Your task to perform on an android device: turn notification dots off Image 0: 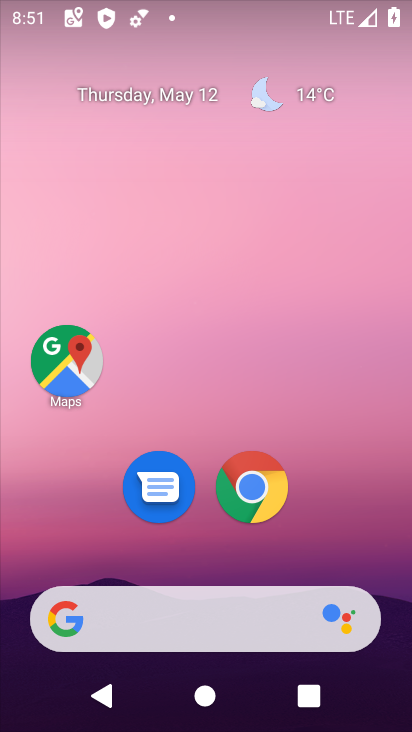
Step 0: drag from (26, 598) to (230, 204)
Your task to perform on an android device: turn notification dots off Image 1: 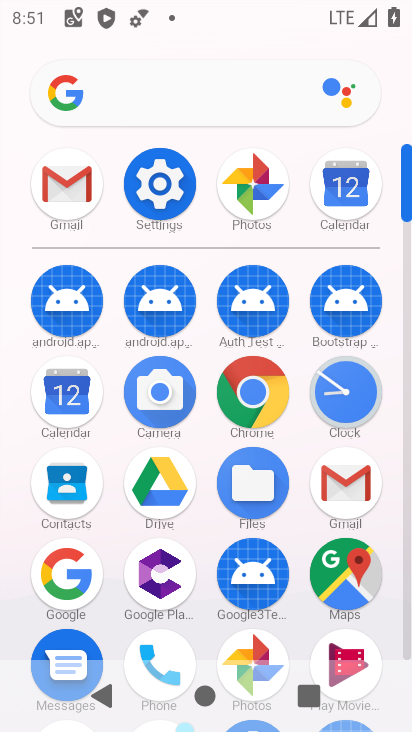
Step 1: click (177, 179)
Your task to perform on an android device: turn notification dots off Image 2: 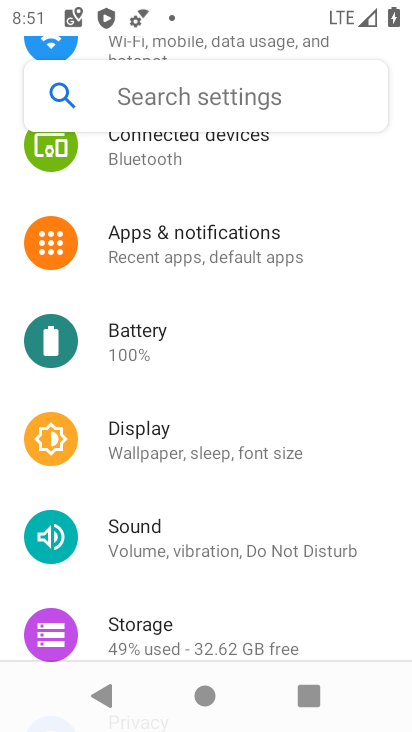
Step 2: click (241, 236)
Your task to perform on an android device: turn notification dots off Image 3: 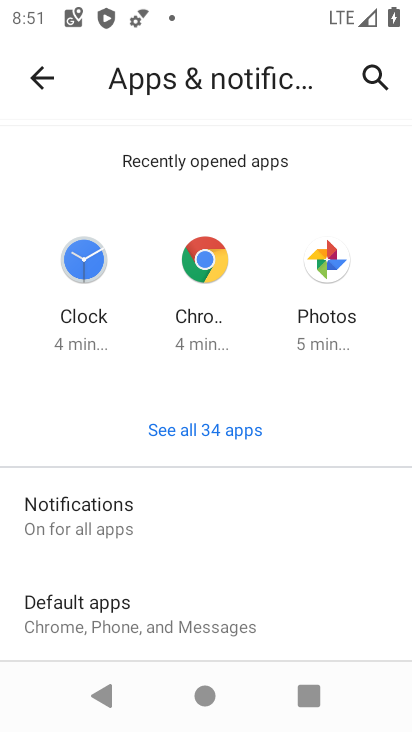
Step 3: click (41, 531)
Your task to perform on an android device: turn notification dots off Image 4: 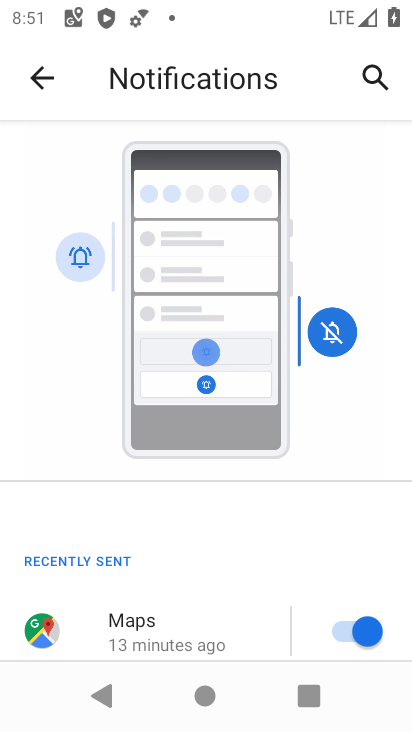
Step 4: drag from (26, 627) to (203, 106)
Your task to perform on an android device: turn notification dots off Image 5: 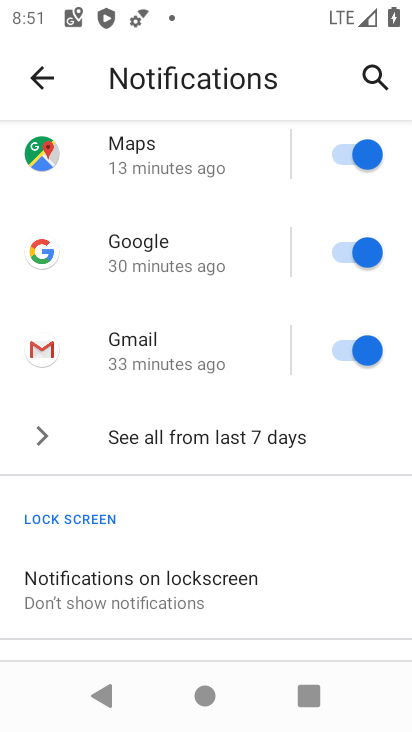
Step 5: drag from (87, 612) to (260, 260)
Your task to perform on an android device: turn notification dots off Image 6: 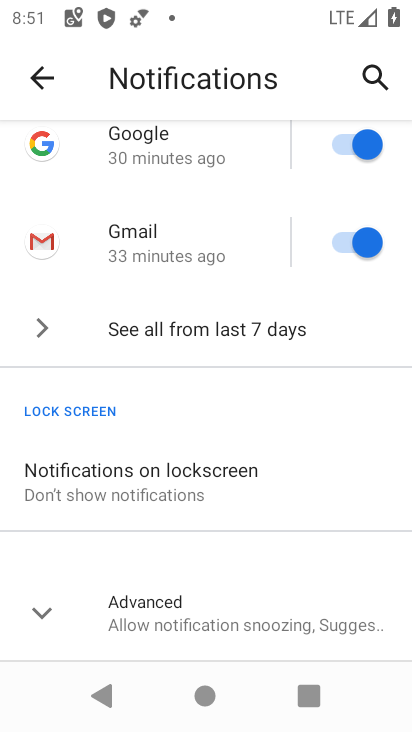
Step 6: click (105, 614)
Your task to perform on an android device: turn notification dots off Image 7: 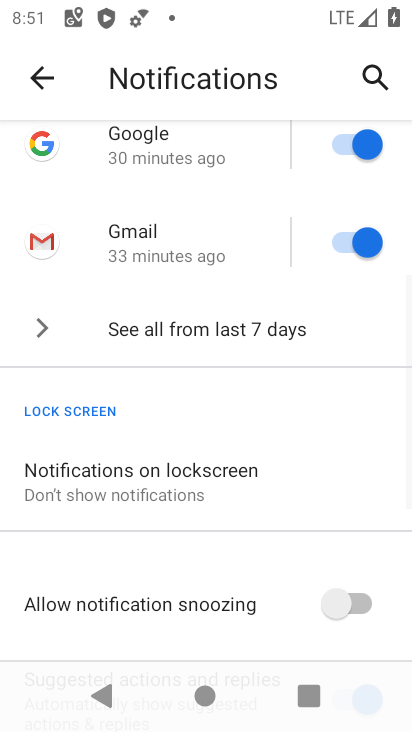
Step 7: drag from (23, 563) to (222, 176)
Your task to perform on an android device: turn notification dots off Image 8: 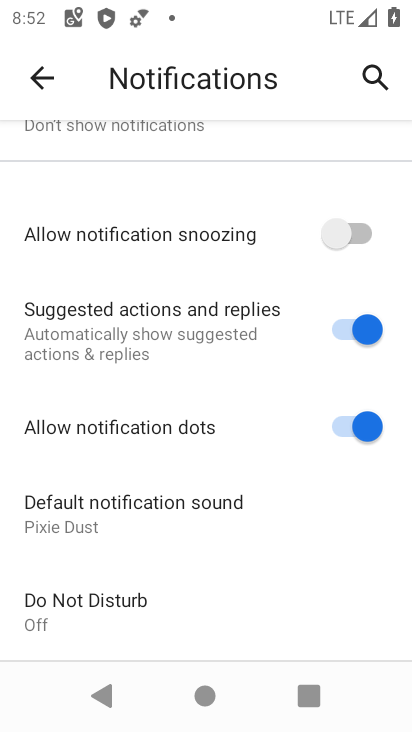
Step 8: click (363, 431)
Your task to perform on an android device: turn notification dots off Image 9: 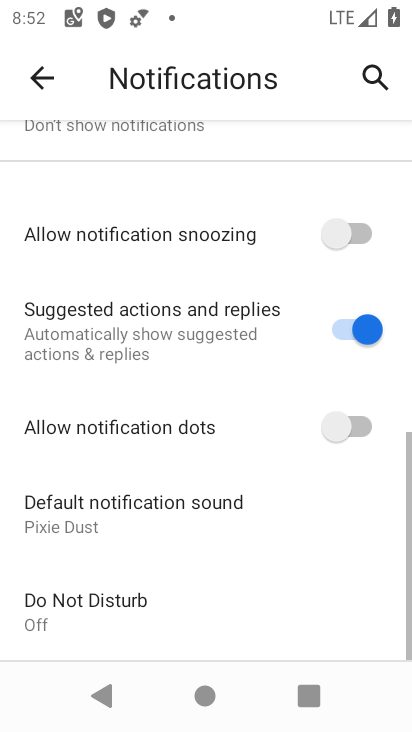
Step 9: task complete